Your task to perform on an android device: What's on the menu at Olive Garden? Image 0: 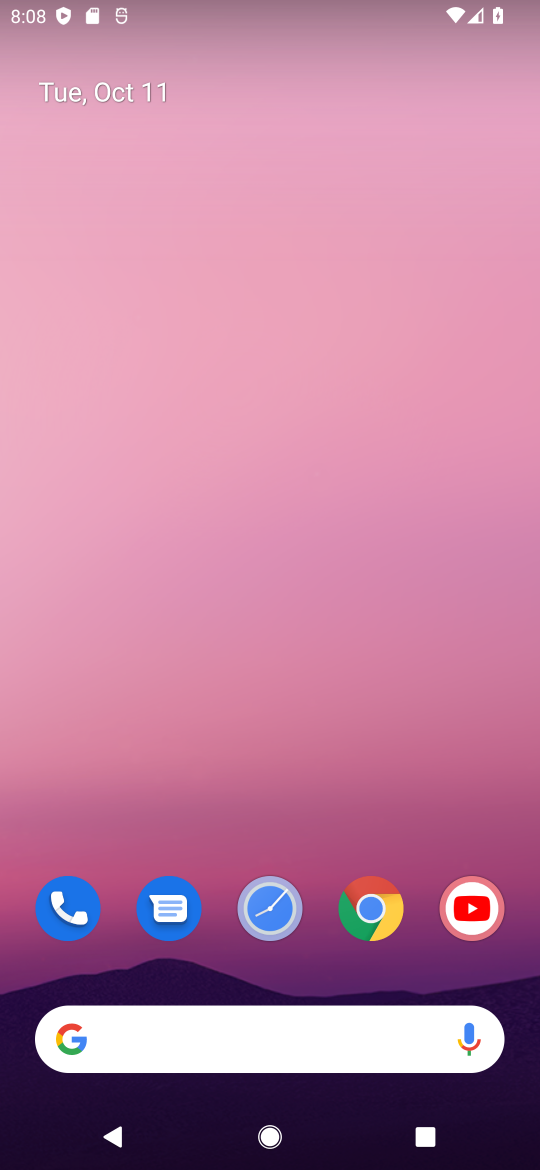
Step 0: click (365, 1032)
Your task to perform on an android device: What's on the menu at Olive Garden? Image 1: 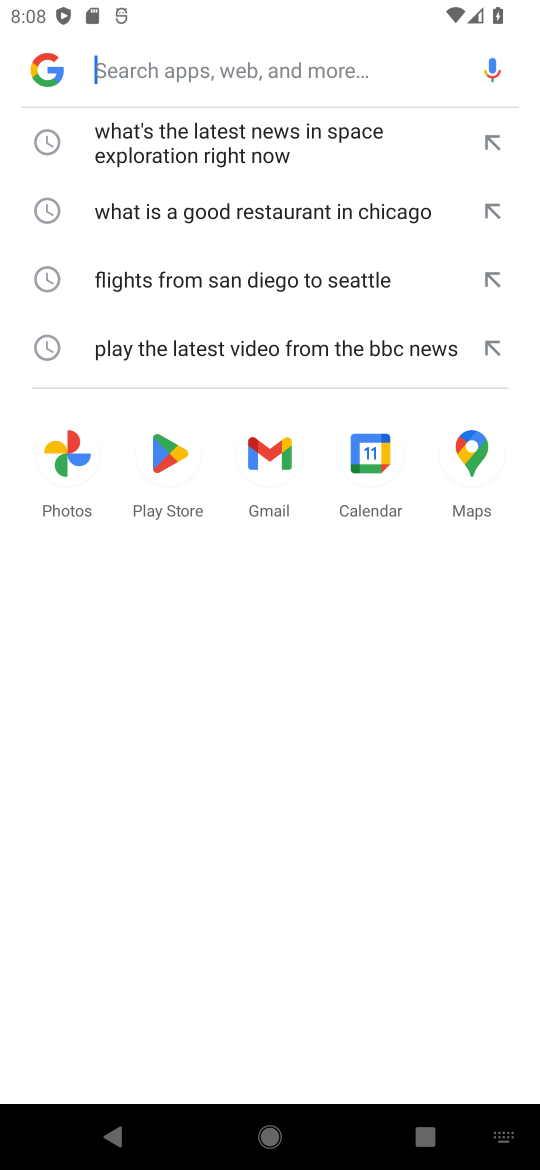
Step 1: type "What's on the menu at Olive Garden?"
Your task to perform on an android device: What's on the menu at Olive Garden? Image 2: 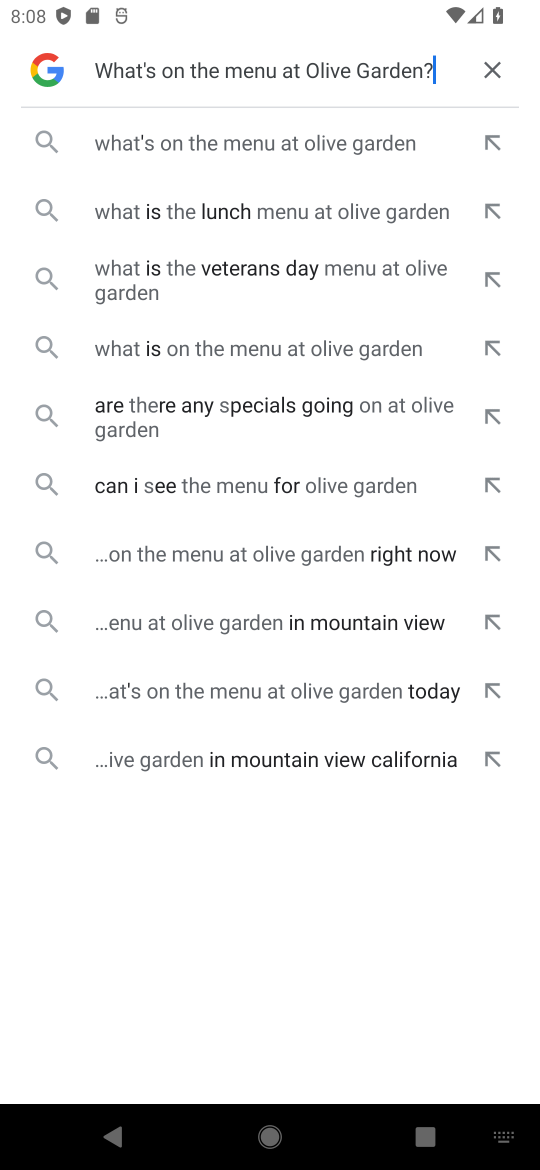
Step 2: click (248, 146)
Your task to perform on an android device: What's on the menu at Olive Garden? Image 3: 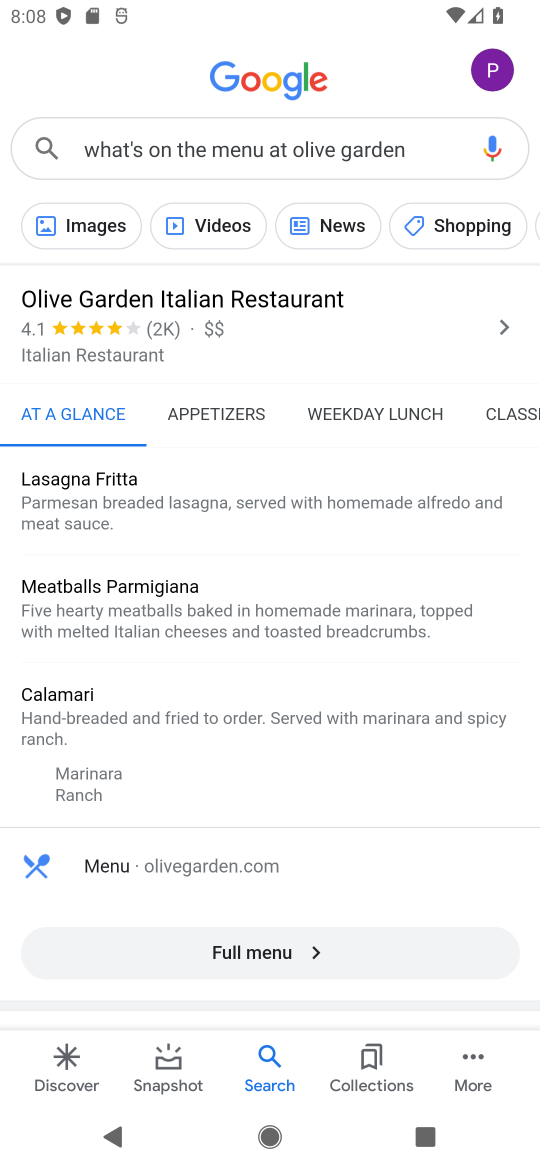
Step 3: drag from (289, 763) to (301, 443)
Your task to perform on an android device: What's on the menu at Olive Garden? Image 4: 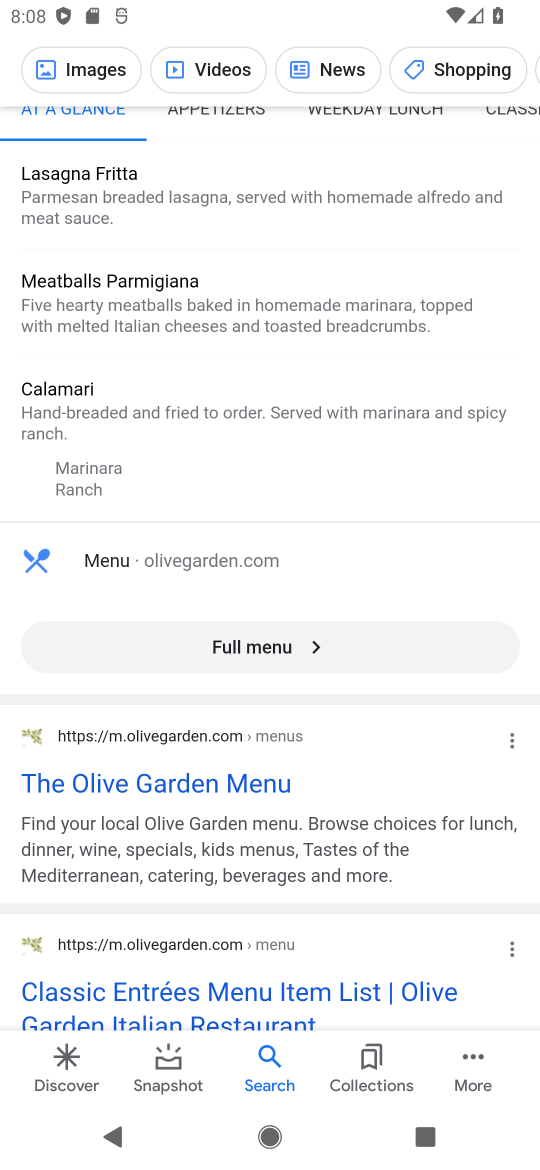
Step 4: click (279, 646)
Your task to perform on an android device: What's on the menu at Olive Garden? Image 5: 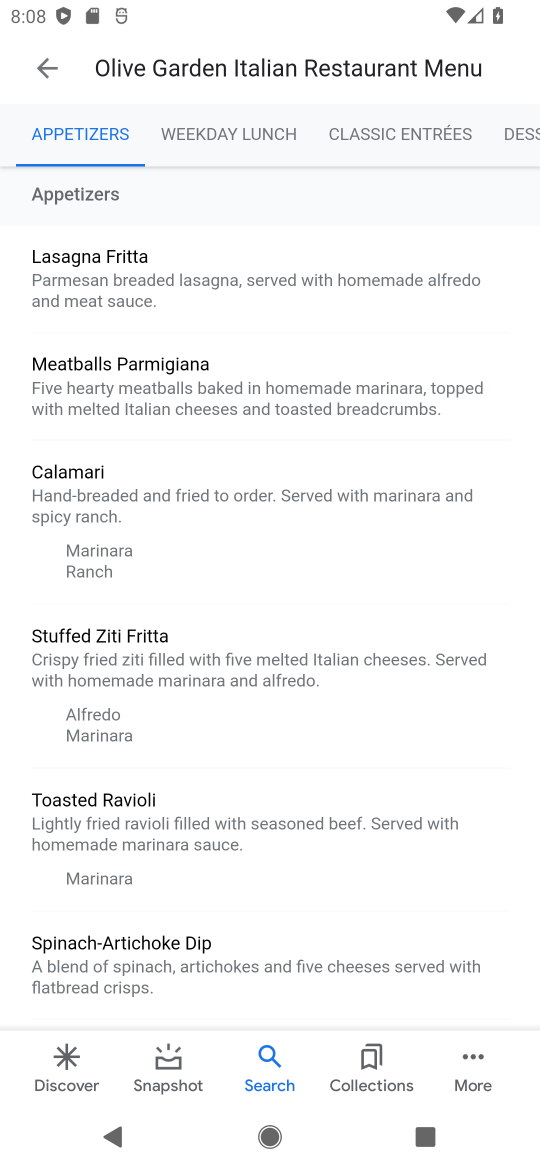
Step 5: task complete